Your task to perform on an android device: open the mobile data screen to see how much data has been used Image 0: 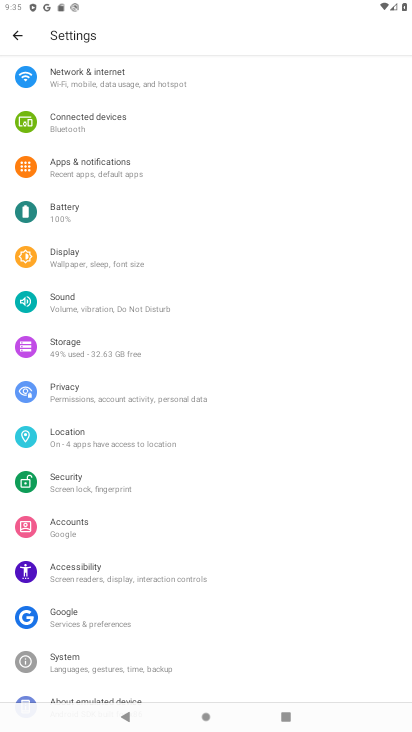
Step 0: drag from (271, 606) to (321, 124)
Your task to perform on an android device: open the mobile data screen to see how much data has been used Image 1: 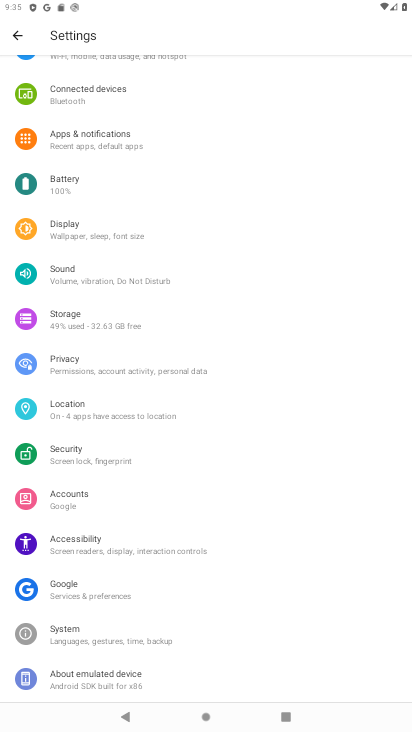
Step 1: drag from (291, 268) to (385, 708)
Your task to perform on an android device: open the mobile data screen to see how much data has been used Image 2: 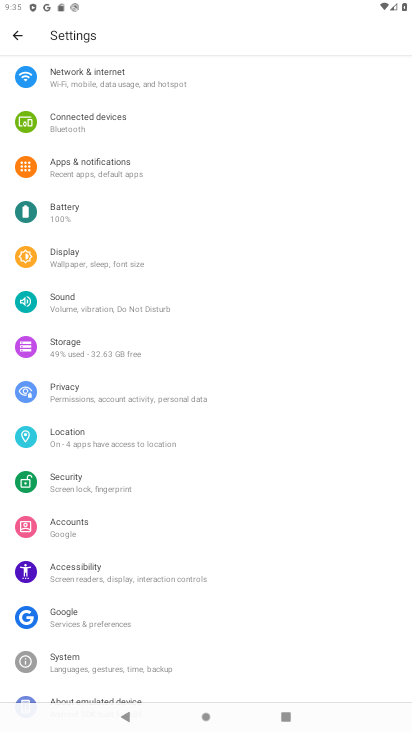
Step 2: click (189, 85)
Your task to perform on an android device: open the mobile data screen to see how much data has been used Image 3: 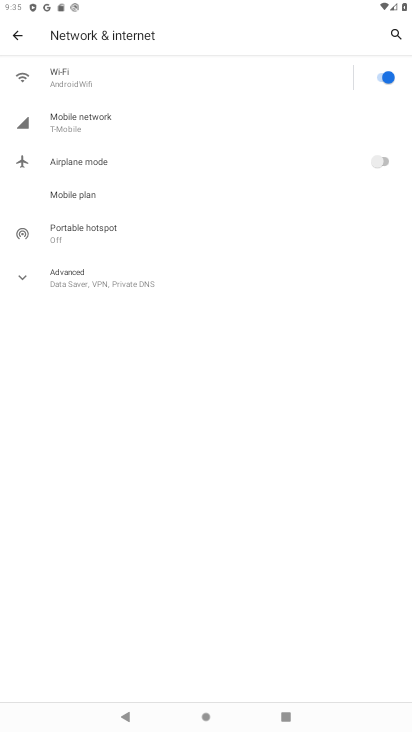
Step 3: task complete